Your task to perform on an android device: Open settings Image 0: 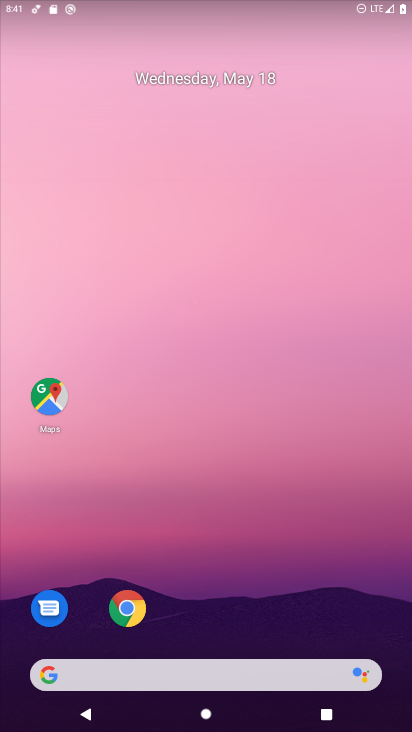
Step 0: drag from (271, 623) to (295, 25)
Your task to perform on an android device: Open settings Image 1: 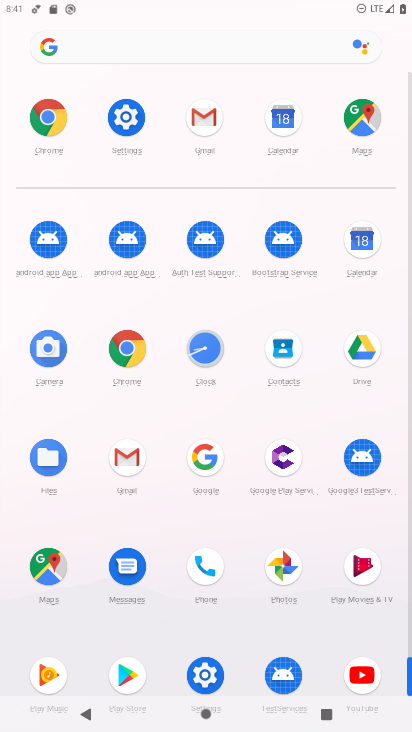
Step 1: click (124, 128)
Your task to perform on an android device: Open settings Image 2: 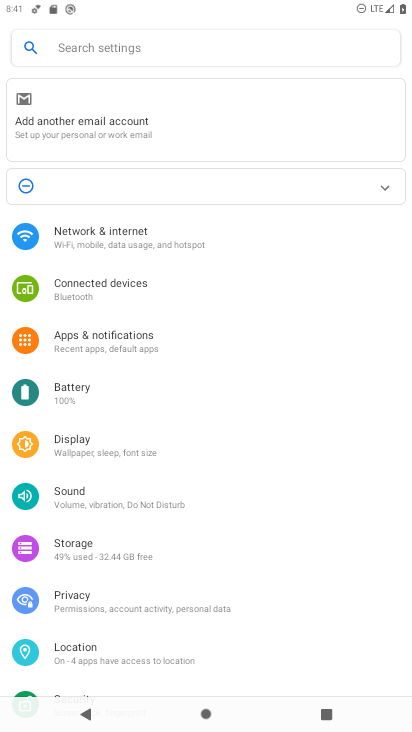
Step 2: task complete